Your task to perform on an android device: turn off translation in the chrome app Image 0: 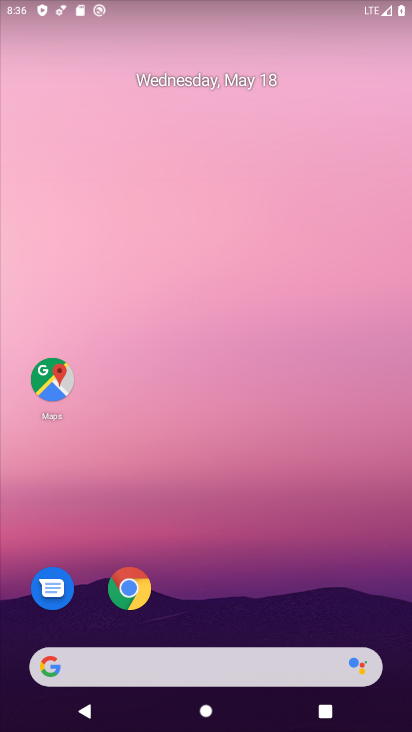
Step 0: click (142, 597)
Your task to perform on an android device: turn off translation in the chrome app Image 1: 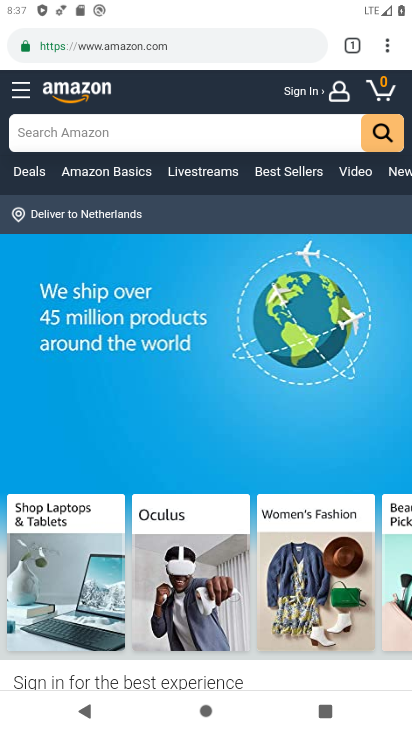
Step 1: click (389, 47)
Your task to perform on an android device: turn off translation in the chrome app Image 2: 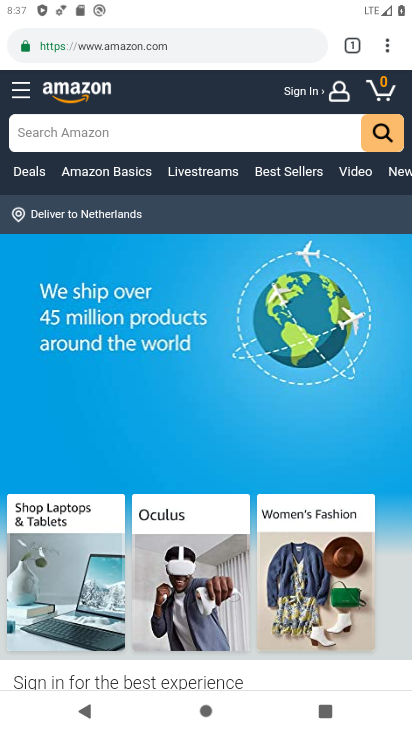
Step 2: click (388, 44)
Your task to perform on an android device: turn off translation in the chrome app Image 3: 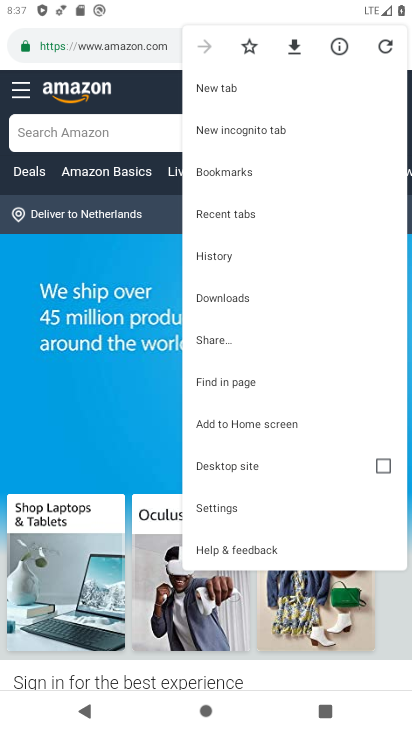
Step 3: click (220, 511)
Your task to perform on an android device: turn off translation in the chrome app Image 4: 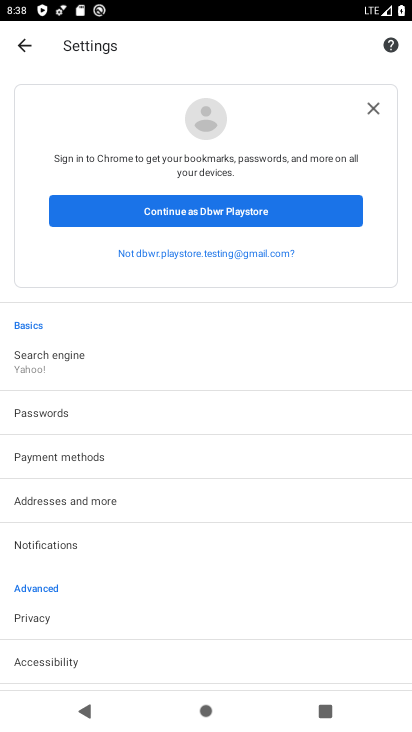
Step 4: drag from (117, 602) to (115, 335)
Your task to perform on an android device: turn off translation in the chrome app Image 5: 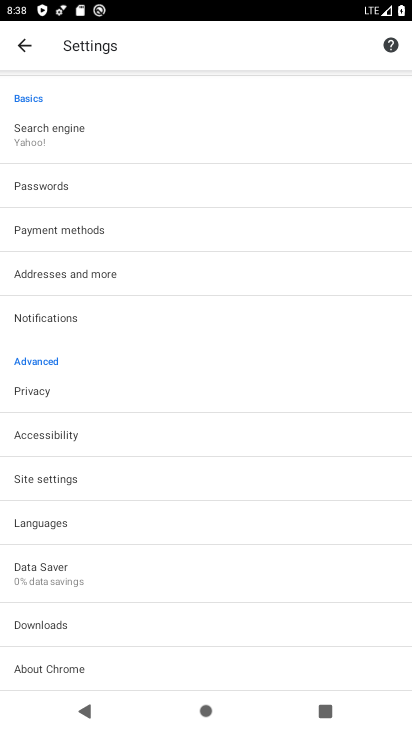
Step 5: click (44, 526)
Your task to perform on an android device: turn off translation in the chrome app Image 6: 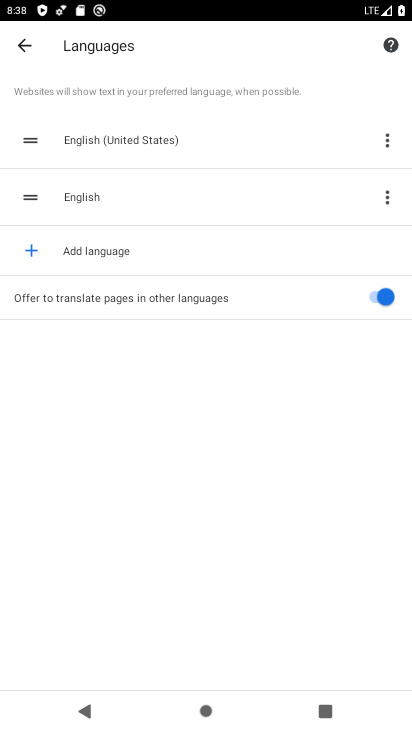
Step 6: click (380, 294)
Your task to perform on an android device: turn off translation in the chrome app Image 7: 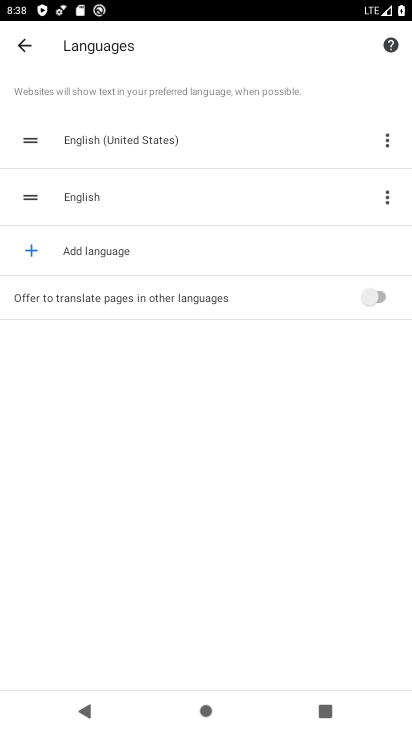
Step 7: task complete